Your task to perform on an android device: turn on improve location accuracy Image 0: 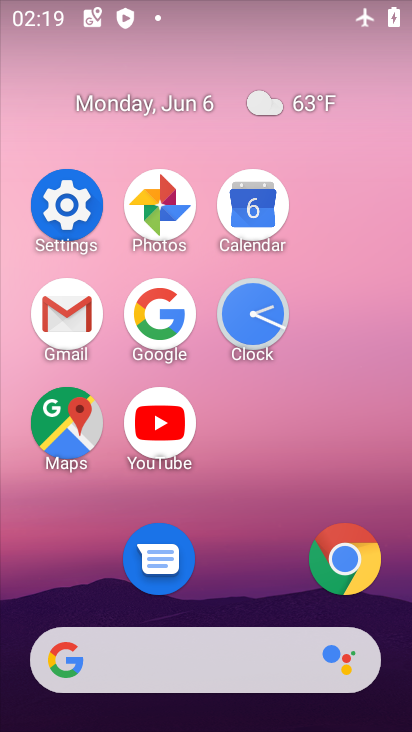
Step 0: click (65, 212)
Your task to perform on an android device: turn on improve location accuracy Image 1: 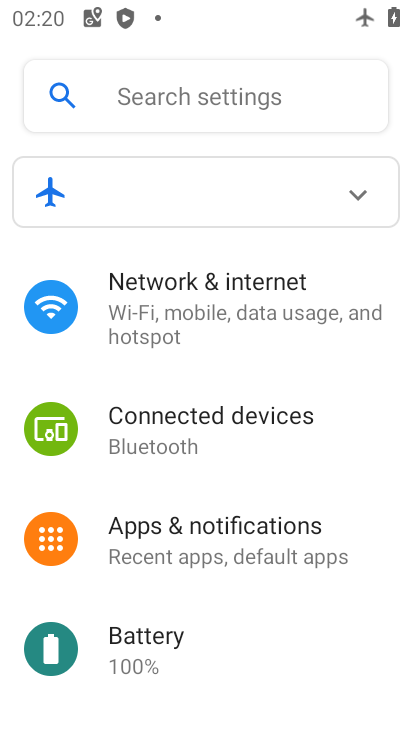
Step 1: drag from (234, 523) to (271, 254)
Your task to perform on an android device: turn on improve location accuracy Image 2: 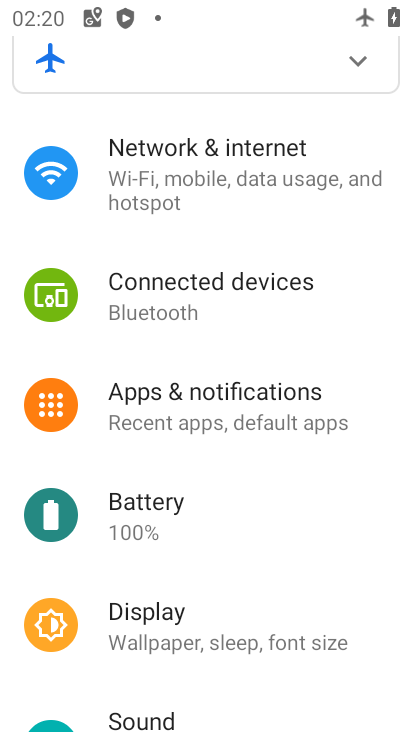
Step 2: drag from (229, 546) to (235, 169)
Your task to perform on an android device: turn on improve location accuracy Image 3: 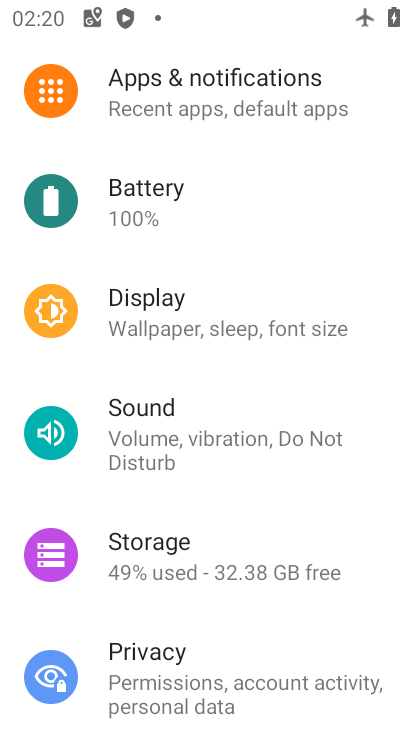
Step 3: drag from (204, 602) to (258, 255)
Your task to perform on an android device: turn on improve location accuracy Image 4: 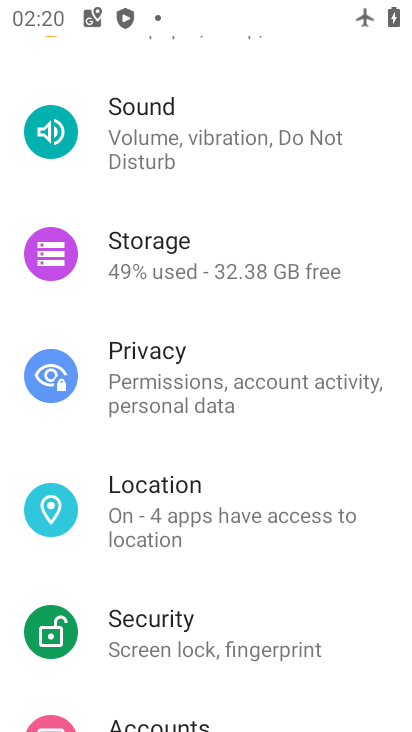
Step 4: click (274, 485)
Your task to perform on an android device: turn on improve location accuracy Image 5: 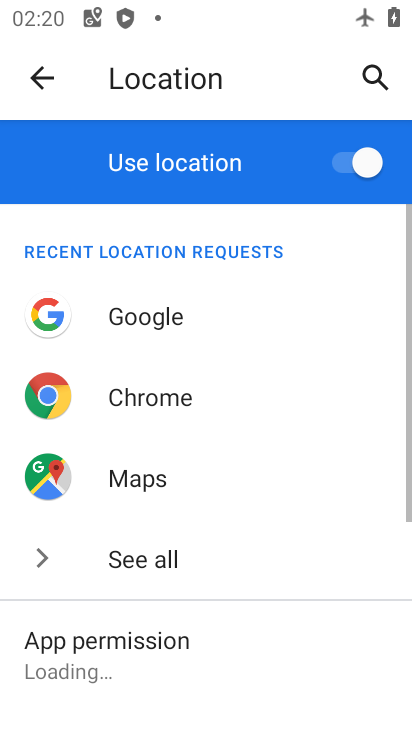
Step 5: drag from (274, 485) to (239, 213)
Your task to perform on an android device: turn on improve location accuracy Image 6: 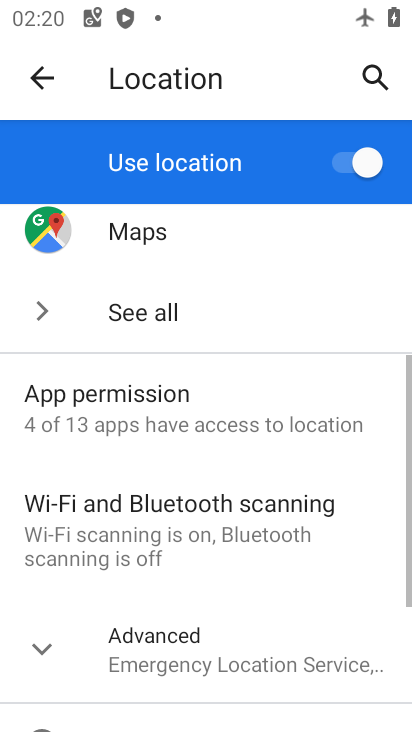
Step 6: click (168, 619)
Your task to perform on an android device: turn on improve location accuracy Image 7: 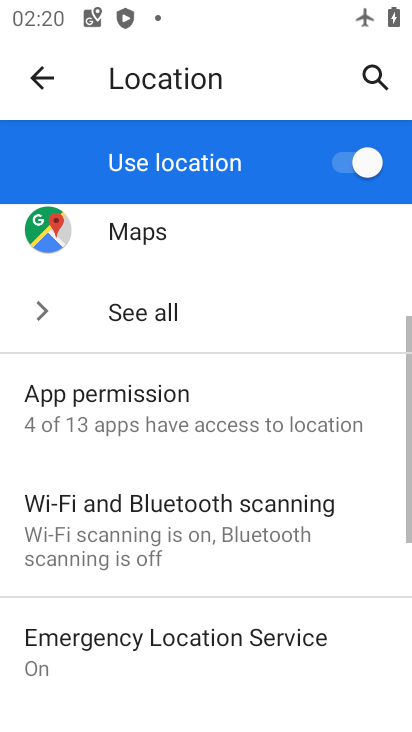
Step 7: drag from (168, 619) to (194, 261)
Your task to perform on an android device: turn on improve location accuracy Image 8: 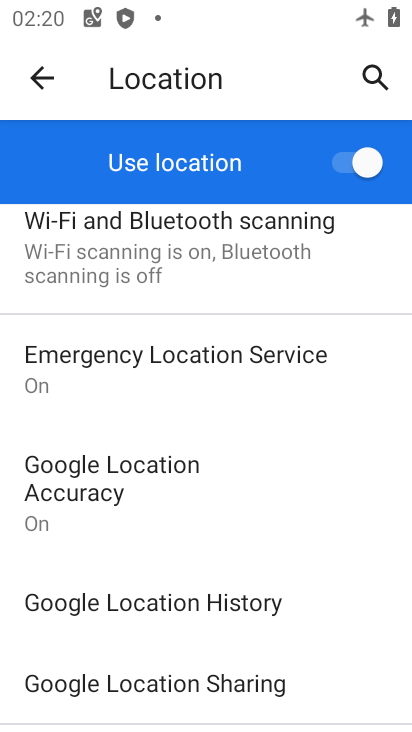
Step 8: drag from (226, 637) to (240, 238)
Your task to perform on an android device: turn on improve location accuracy Image 9: 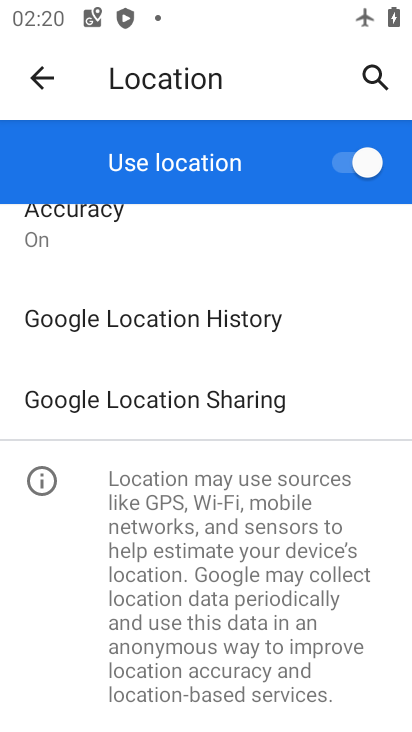
Step 9: drag from (231, 287) to (234, 641)
Your task to perform on an android device: turn on improve location accuracy Image 10: 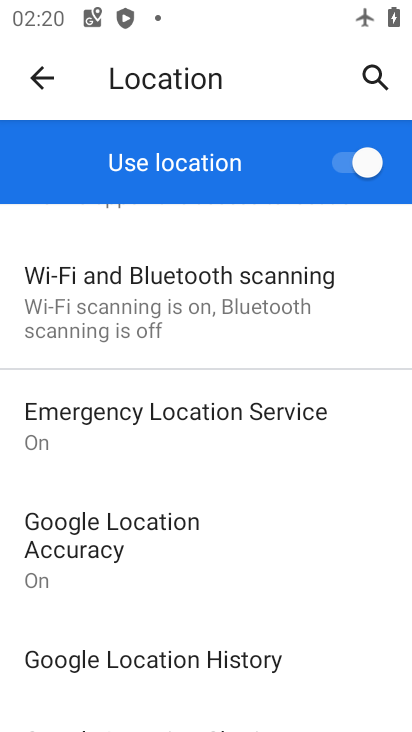
Step 10: click (187, 527)
Your task to perform on an android device: turn on improve location accuracy Image 11: 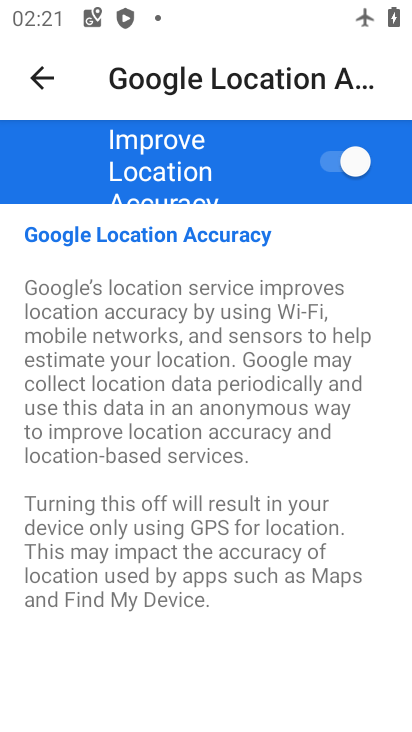
Step 11: task complete